Your task to perform on an android device: Open Chrome and go to settings Image 0: 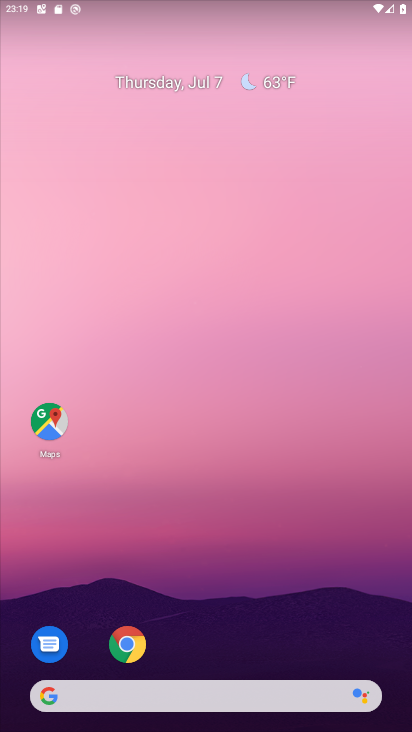
Step 0: click (131, 645)
Your task to perform on an android device: Open Chrome and go to settings Image 1: 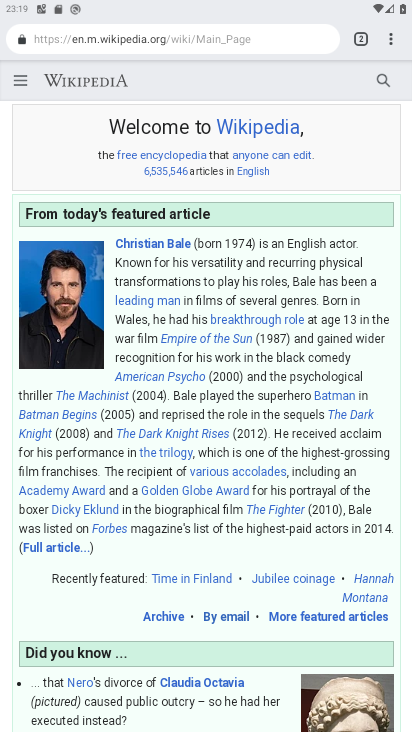
Step 1: click (391, 41)
Your task to perform on an android device: Open Chrome and go to settings Image 2: 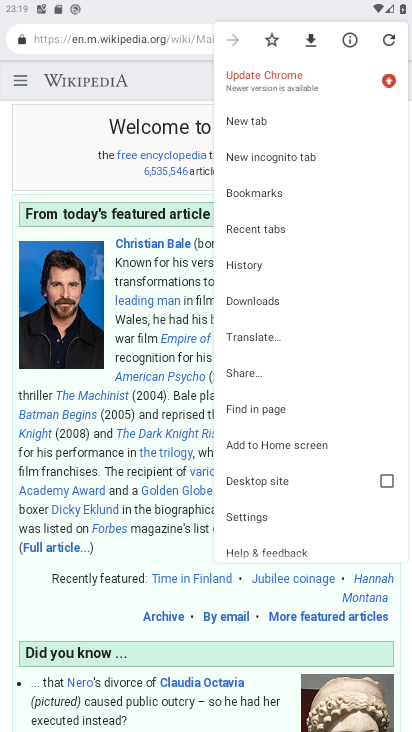
Step 2: click (240, 514)
Your task to perform on an android device: Open Chrome and go to settings Image 3: 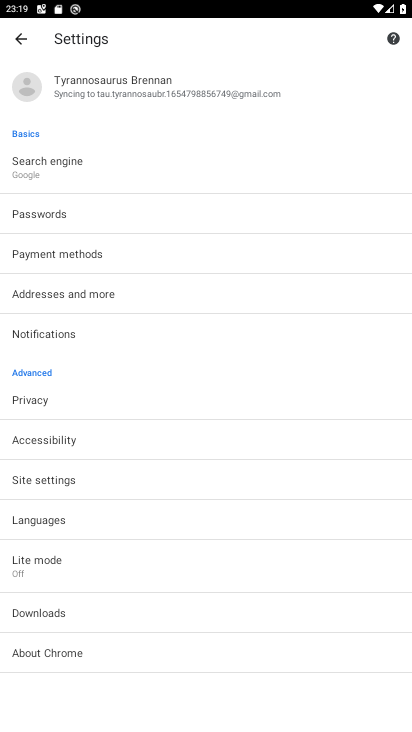
Step 3: task complete